Your task to perform on an android device: check the backup settings in the google photos Image 0: 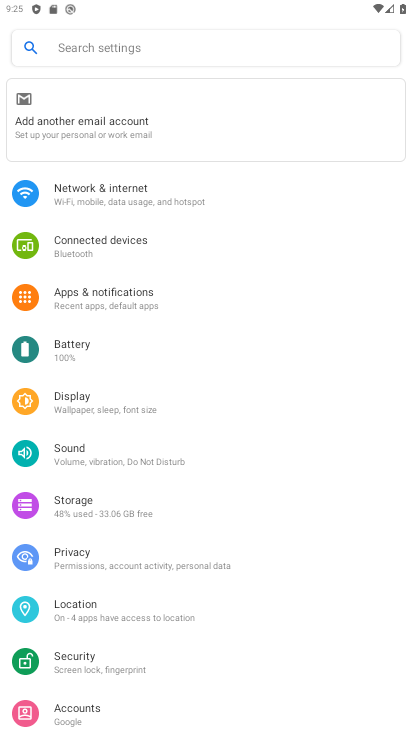
Step 0: press home button
Your task to perform on an android device: check the backup settings in the google photos Image 1: 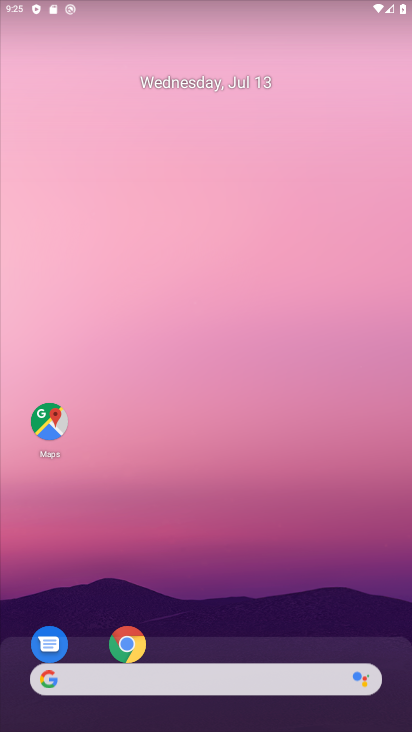
Step 1: drag from (192, 698) to (344, 52)
Your task to perform on an android device: check the backup settings in the google photos Image 2: 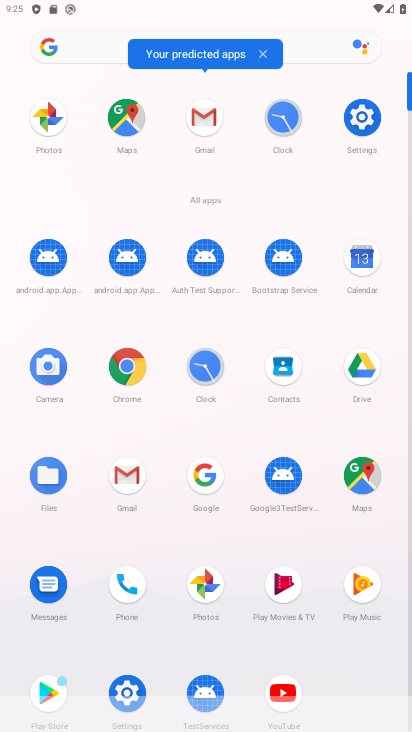
Step 2: click (208, 586)
Your task to perform on an android device: check the backup settings in the google photos Image 3: 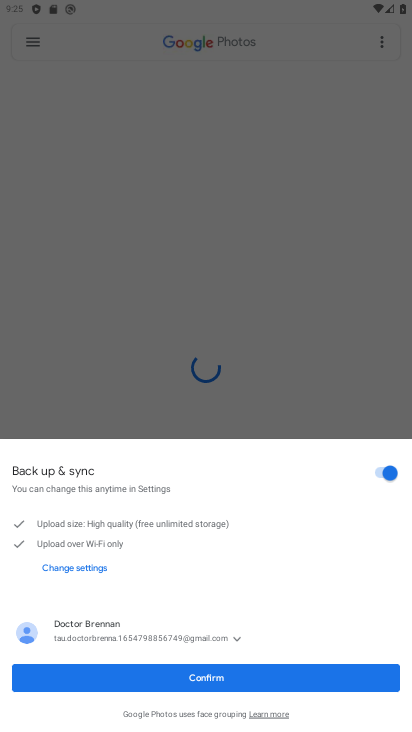
Step 3: click (33, 43)
Your task to perform on an android device: check the backup settings in the google photos Image 4: 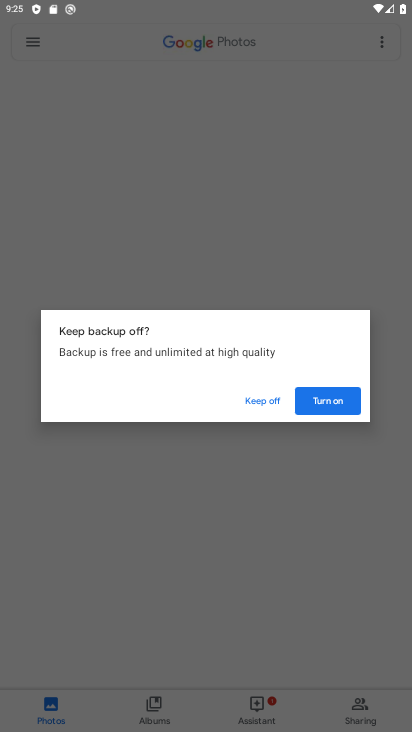
Step 4: click (263, 398)
Your task to perform on an android device: check the backup settings in the google photos Image 5: 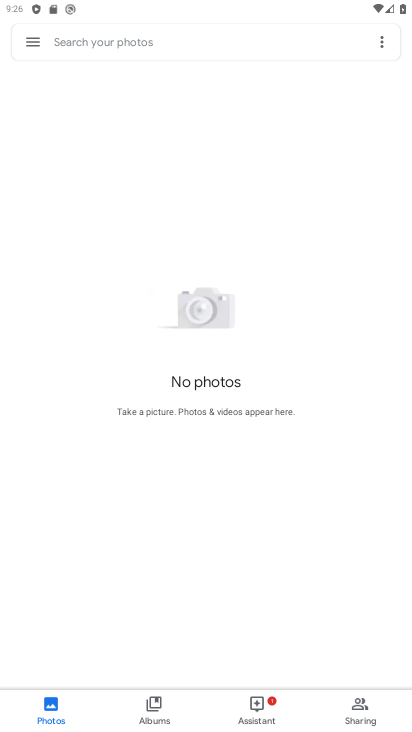
Step 5: click (27, 36)
Your task to perform on an android device: check the backup settings in the google photos Image 6: 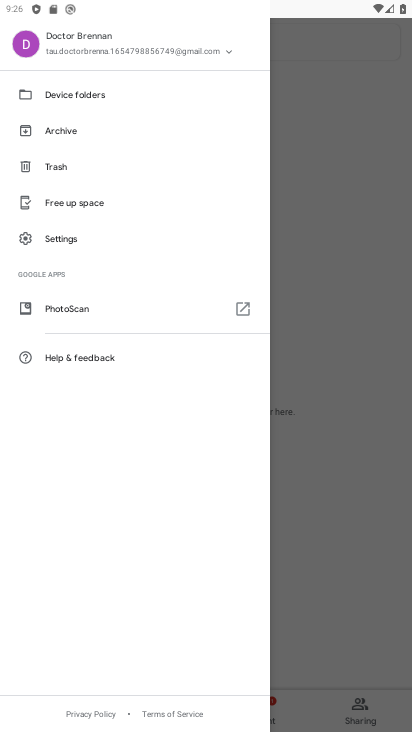
Step 6: click (98, 242)
Your task to perform on an android device: check the backup settings in the google photos Image 7: 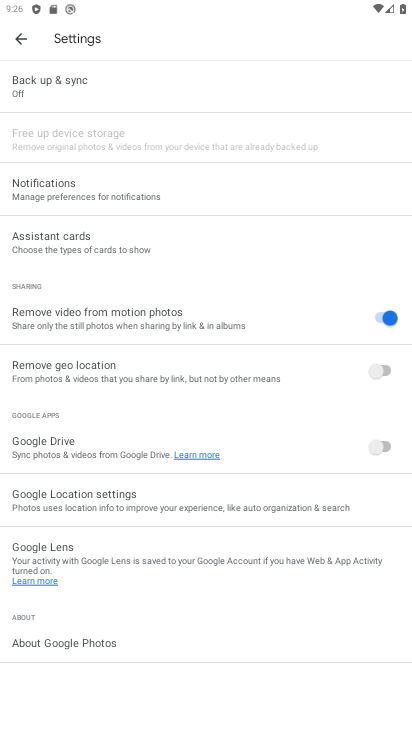
Step 7: click (114, 93)
Your task to perform on an android device: check the backup settings in the google photos Image 8: 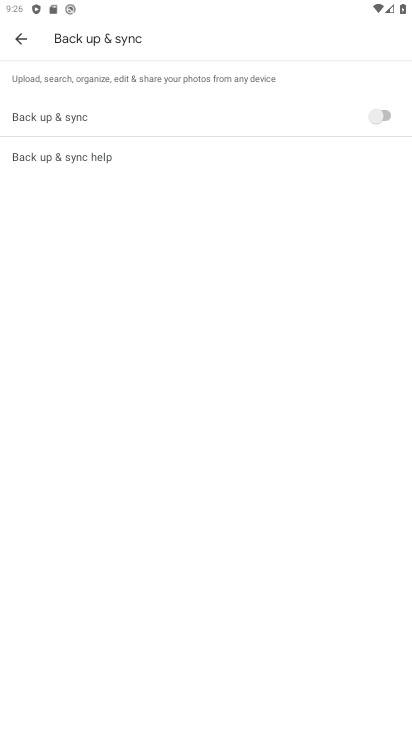
Step 8: task complete